Your task to perform on an android device: What's on my calendar today? Image 0: 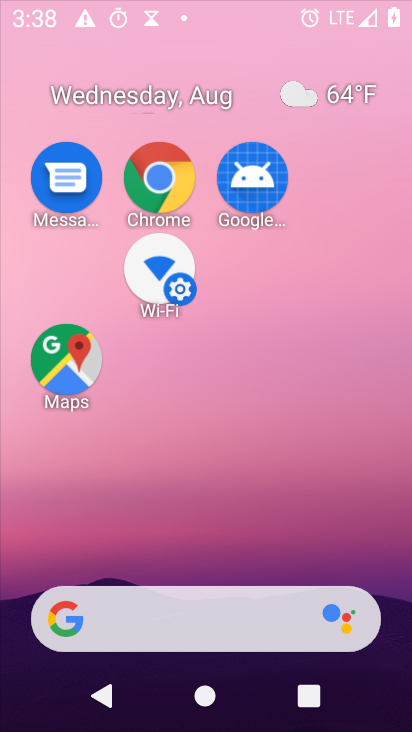
Step 0: press home button
Your task to perform on an android device: What's on my calendar today? Image 1: 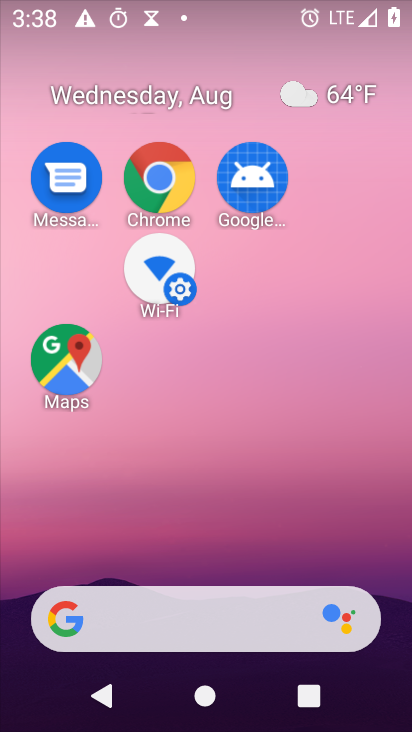
Step 1: drag from (337, 121) to (340, 35)
Your task to perform on an android device: What's on my calendar today? Image 2: 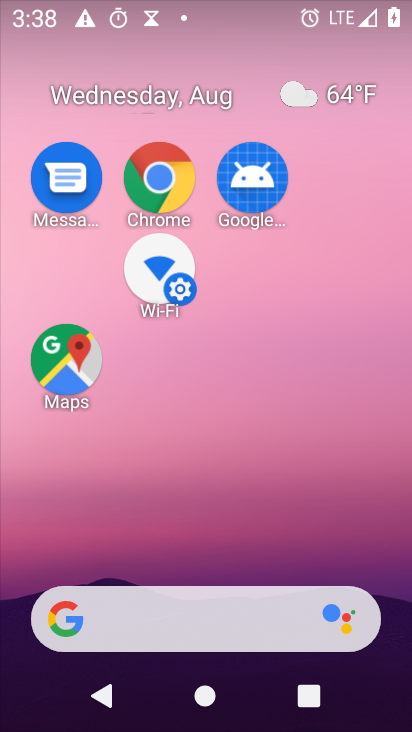
Step 2: drag from (342, 391) to (342, 6)
Your task to perform on an android device: What's on my calendar today? Image 3: 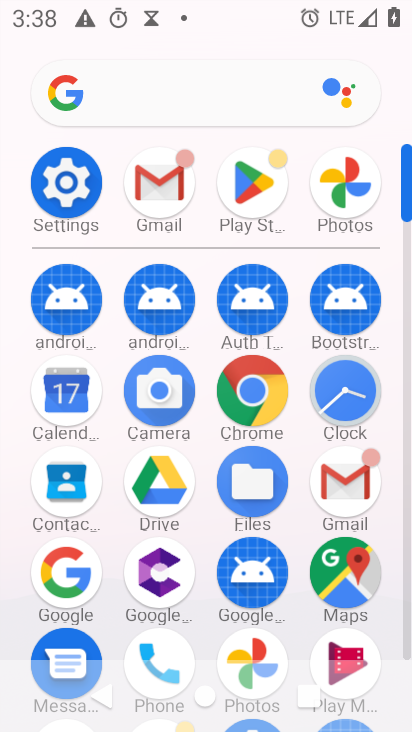
Step 3: drag from (204, 604) to (217, 13)
Your task to perform on an android device: What's on my calendar today? Image 4: 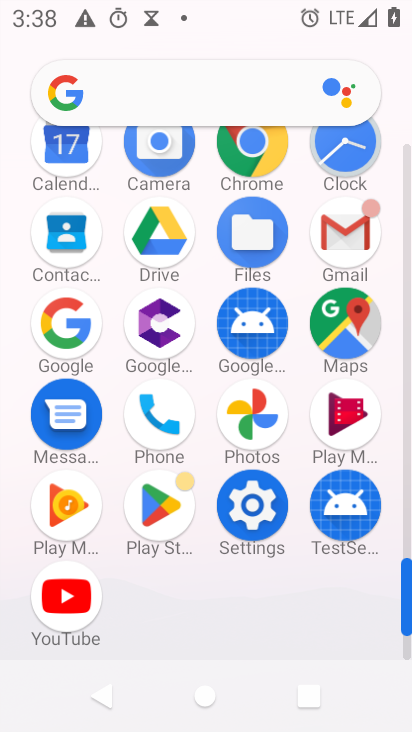
Step 4: click (64, 140)
Your task to perform on an android device: What's on my calendar today? Image 5: 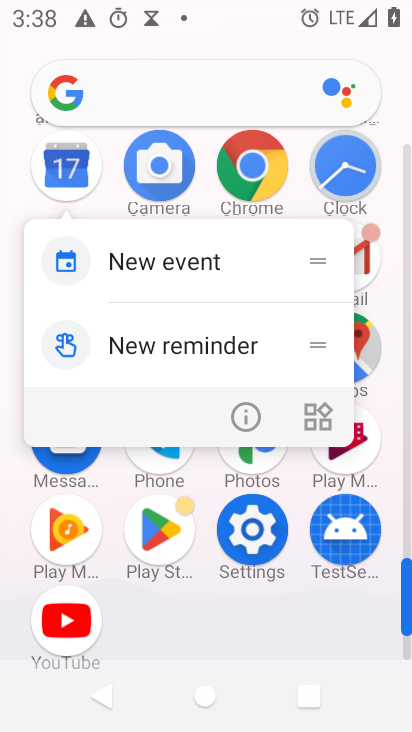
Step 5: click (71, 161)
Your task to perform on an android device: What's on my calendar today? Image 6: 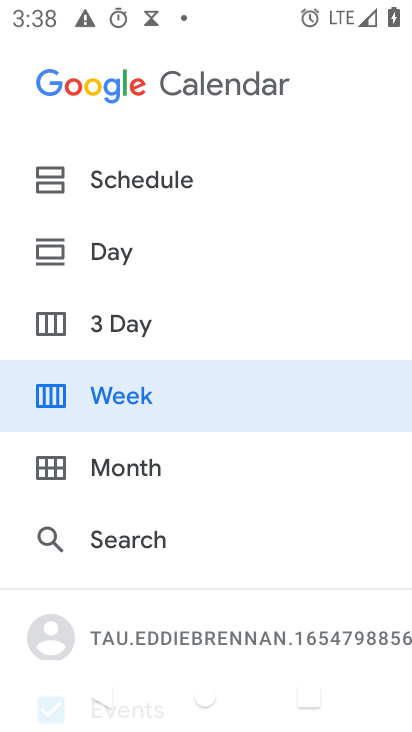
Step 6: click (119, 470)
Your task to perform on an android device: What's on my calendar today? Image 7: 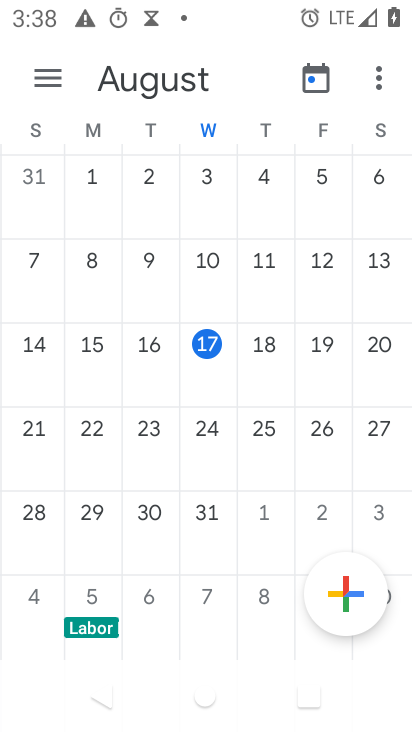
Step 7: click (204, 346)
Your task to perform on an android device: What's on my calendar today? Image 8: 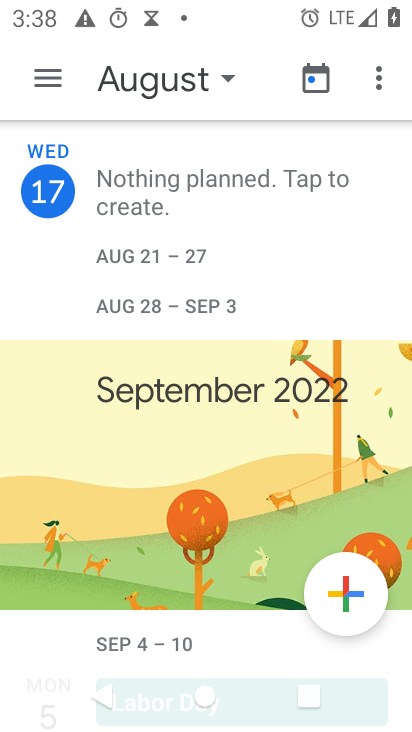
Step 8: task complete